Your task to perform on an android device: see sites visited before in the chrome app Image 0: 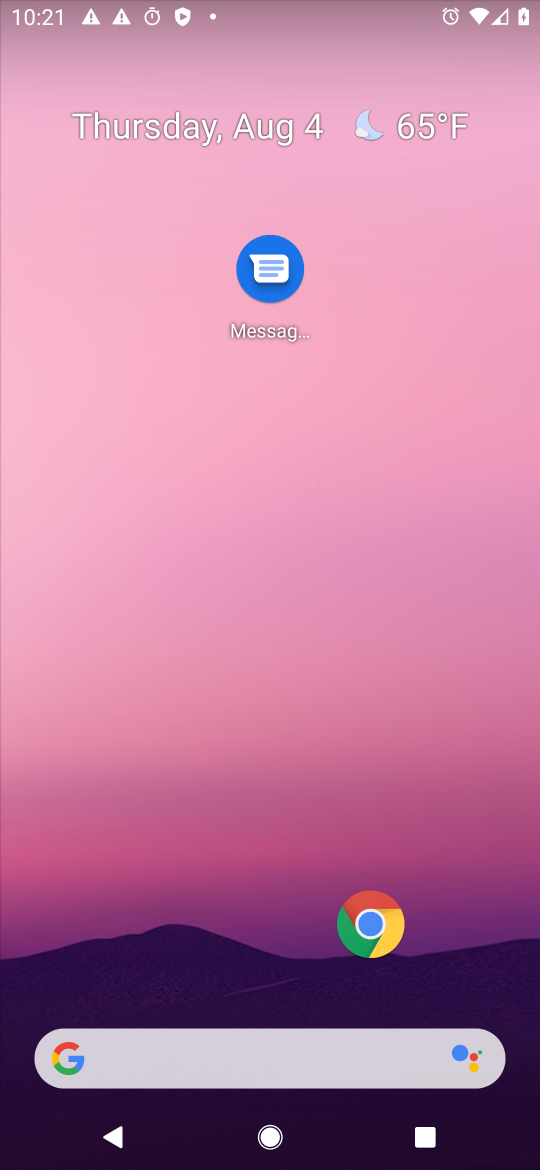
Step 0: drag from (267, 586) to (315, 139)
Your task to perform on an android device: see sites visited before in the chrome app Image 1: 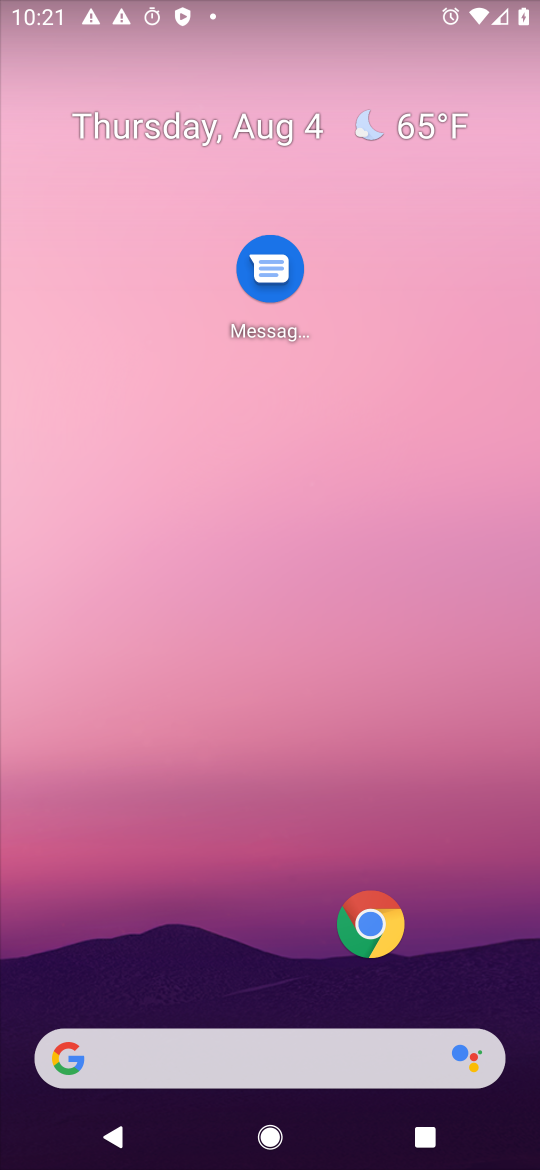
Step 1: drag from (264, 915) to (229, 223)
Your task to perform on an android device: see sites visited before in the chrome app Image 2: 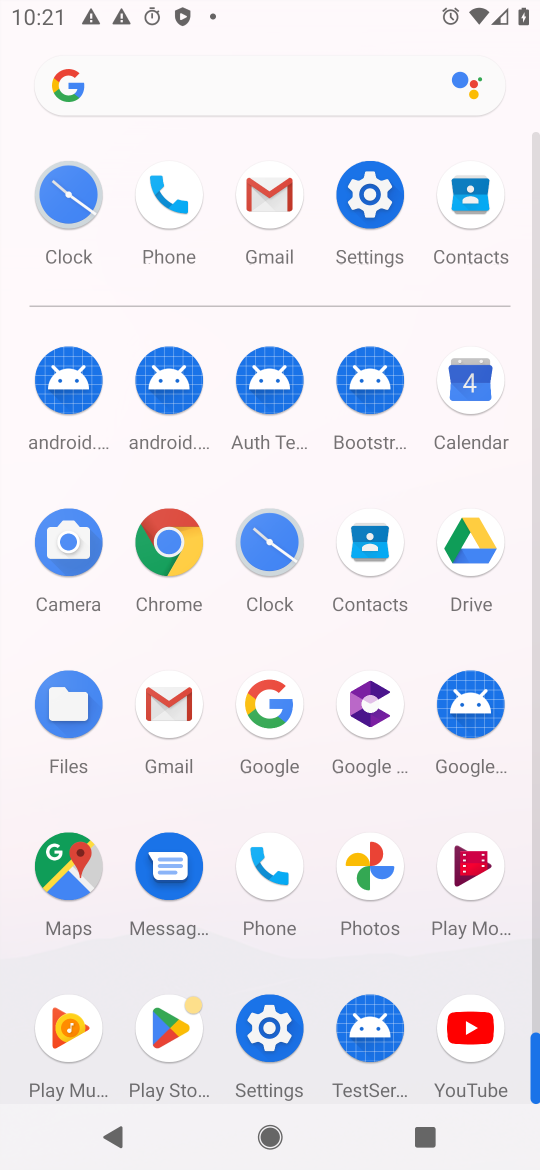
Step 2: click (158, 555)
Your task to perform on an android device: see sites visited before in the chrome app Image 3: 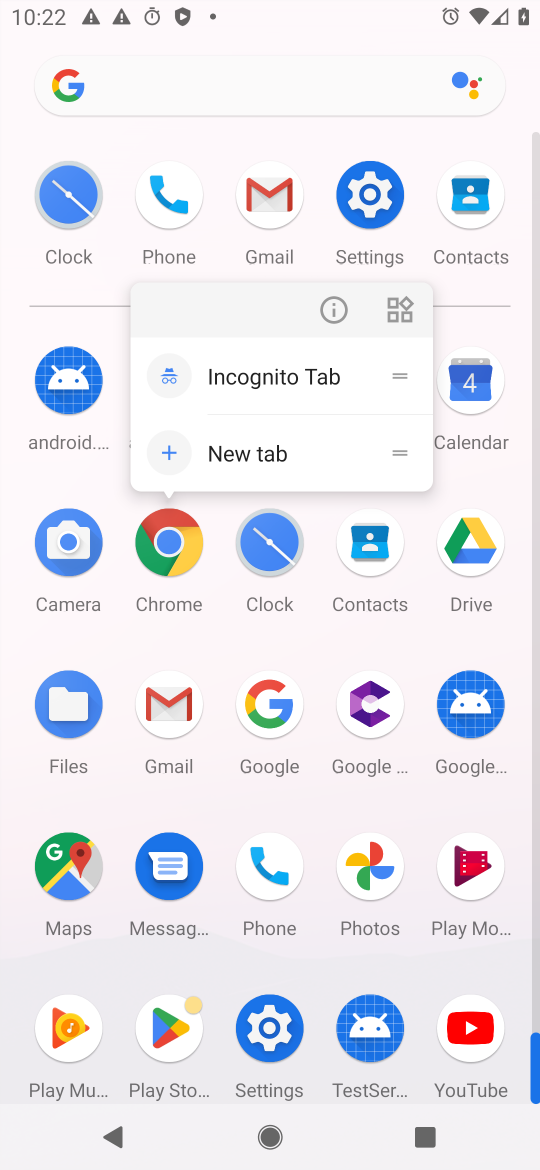
Step 3: click (317, 314)
Your task to perform on an android device: see sites visited before in the chrome app Image 4: 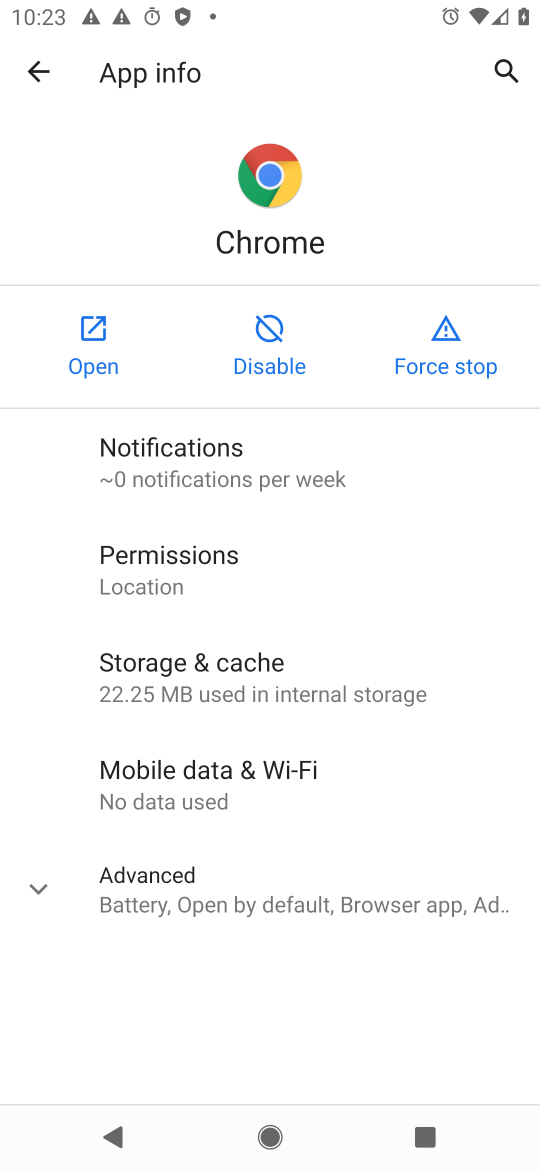
Step 4: click (90, 333)
Your task to perform on an android device: see sites visited before in the chrome app Image 5: 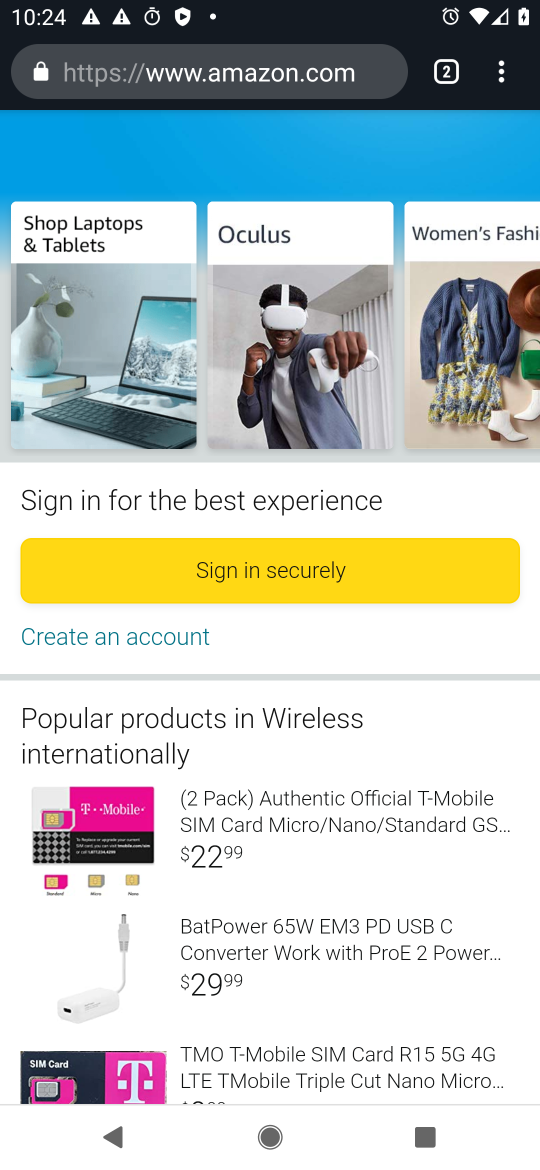
Step 5: drag from (223, 900) to (304, 376)
Your task to perform on an android device: see sites visited before in the chrome app Image 6: 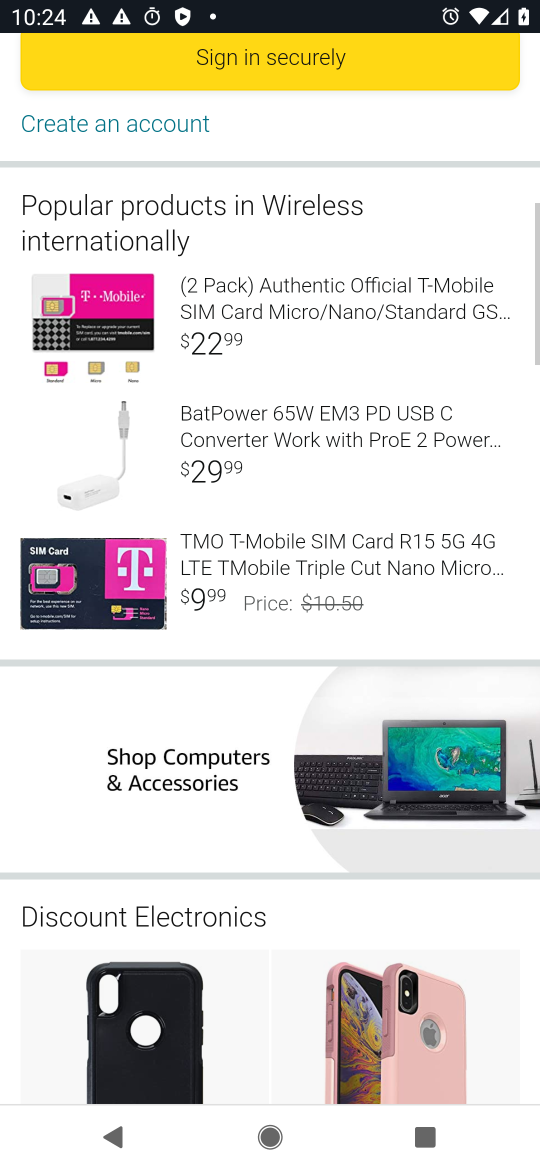
Step 6: drag from (287, 325) to (534, 52)
Your task to perform on an android device: see sites visited before in the chrome app Image 7: 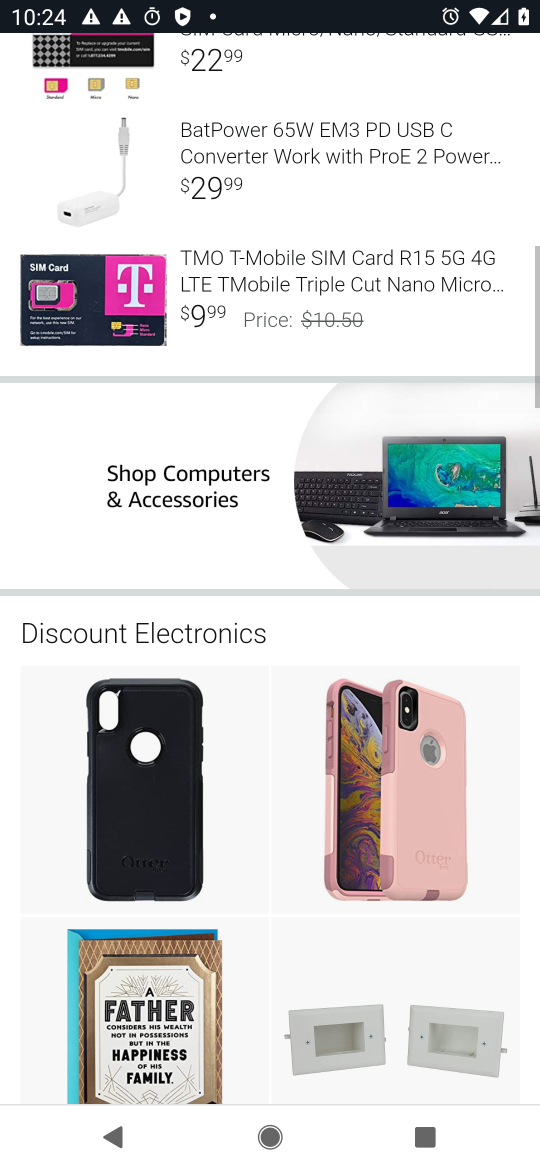
Step 7: drag from (504, 68) to (490, 225)
Your task to perform on an android device: see sites visited before in the chrome app Image 8: 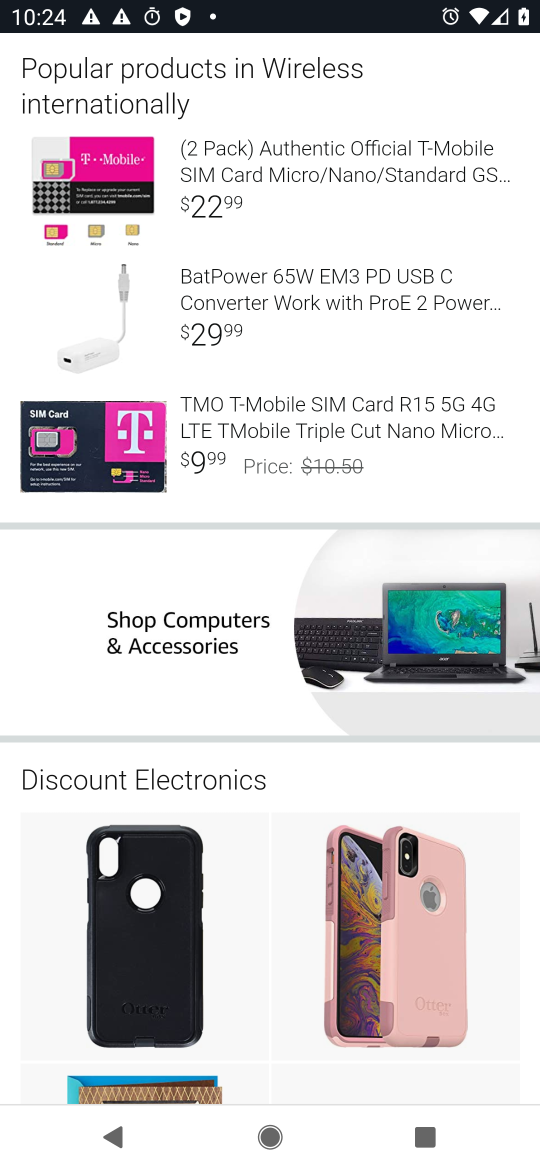
Step 8: drag from (497, 66) to (493, 283)
Your task to perform on an android device: see sites visited before in the chrome app Image 9: 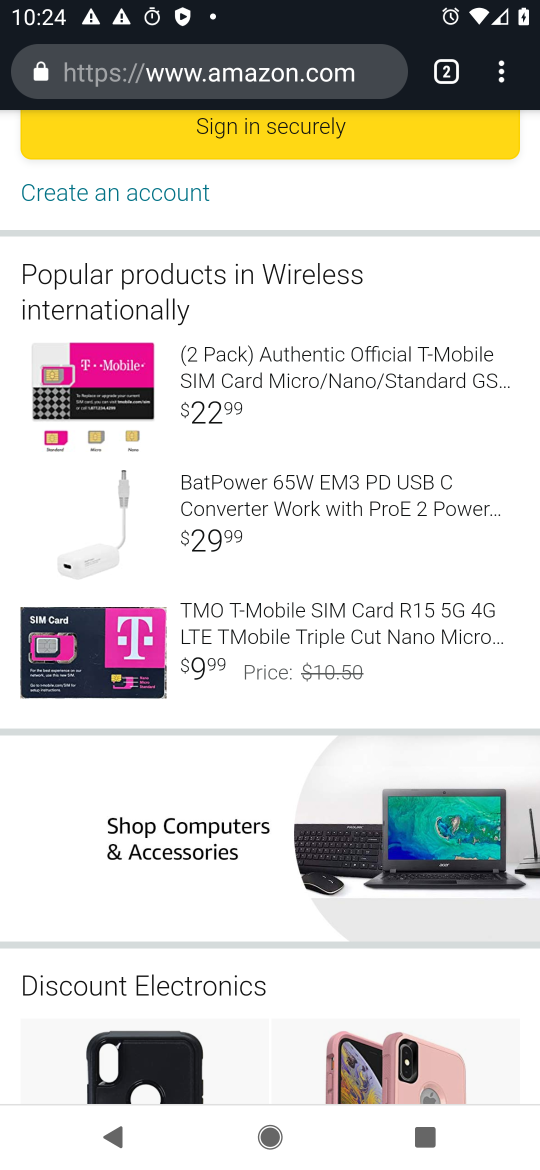
Step 9: drag from (496, 65) to (258, 405)
Your task to perform on an android device: see sites visited before in the chrome app Image 10: 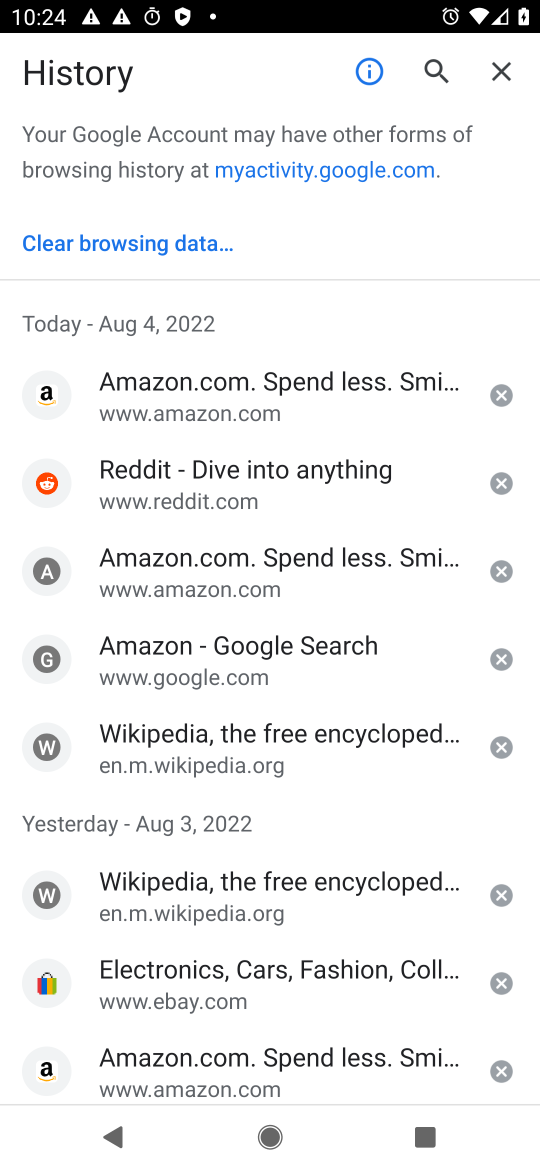
Step 10: drag from (245, 841) to (396, 231)
Your task to perform on an android device: see sites visited before in the chrome app Image 11: 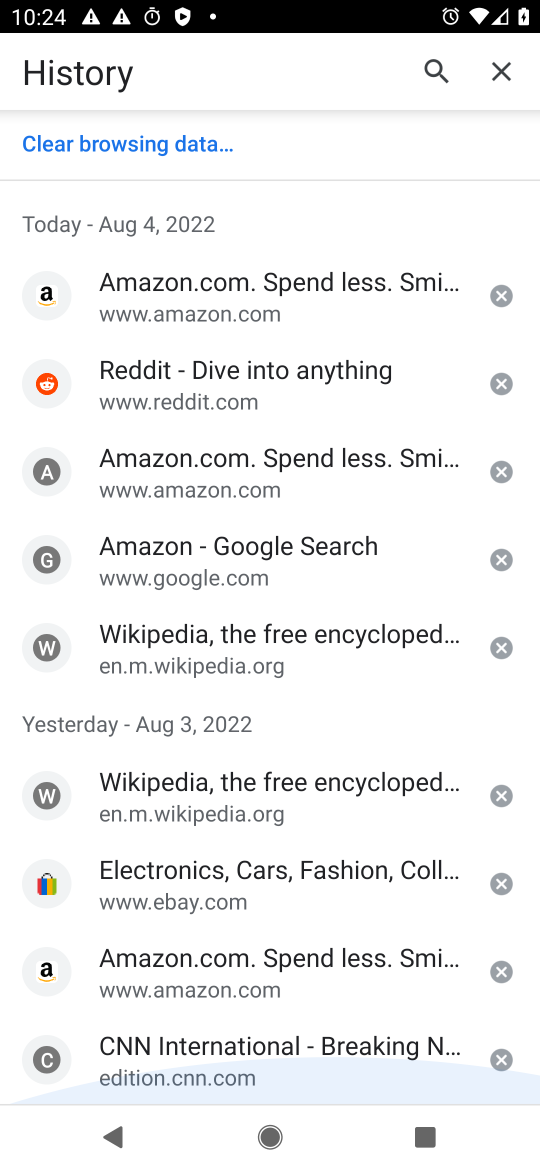
Step 11: drag from (222, 917) to (213, 980)
Your task to perform on an android device: see sites visited before in the chrome app Image 12: 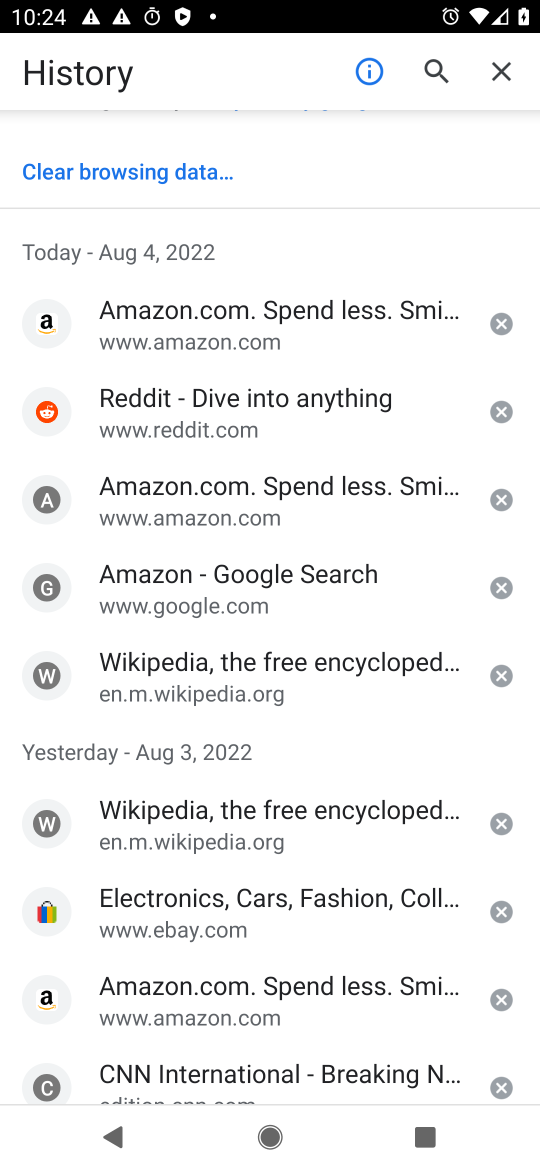
Step 12: click (246, 804)
Your task to perform on an android device: see sites visited before in the chrome app Image 13: 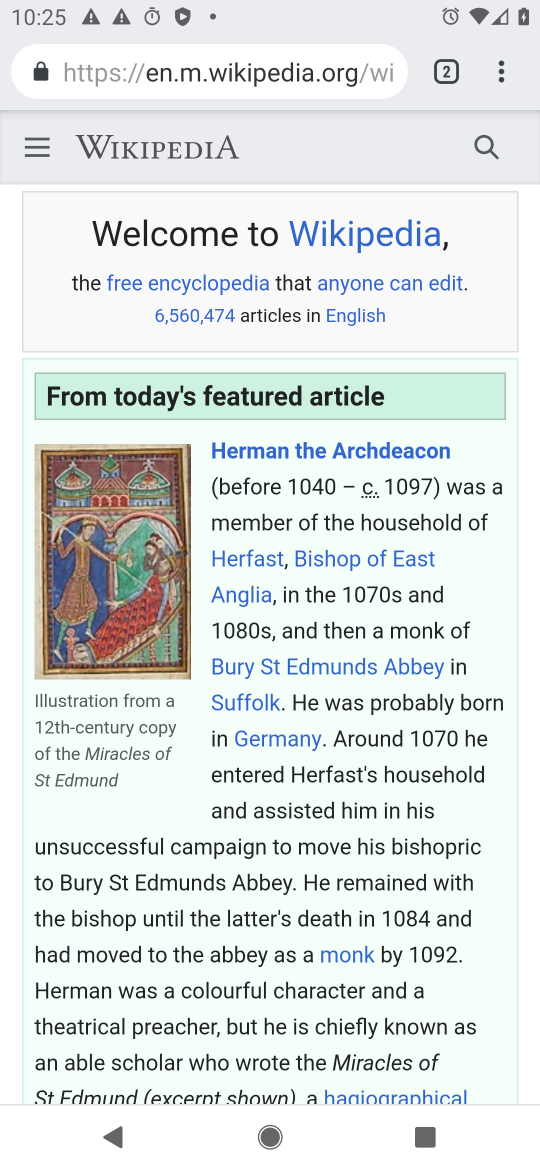
Step 13: drag from (189, 864) to (269, 632)
Your task to perform on an android device: see sites visited before in the chrome app Image 14: 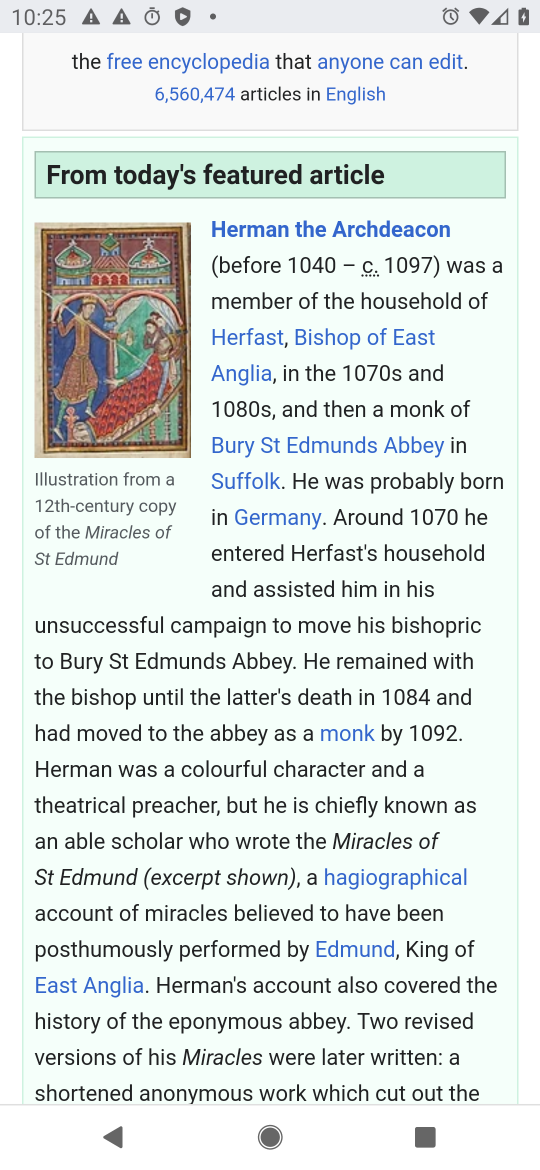
Step 14: drag from (171, 473) to (361, 1160)
Your task to perform on an android device: see sites visited before in the chrome app Image 15: 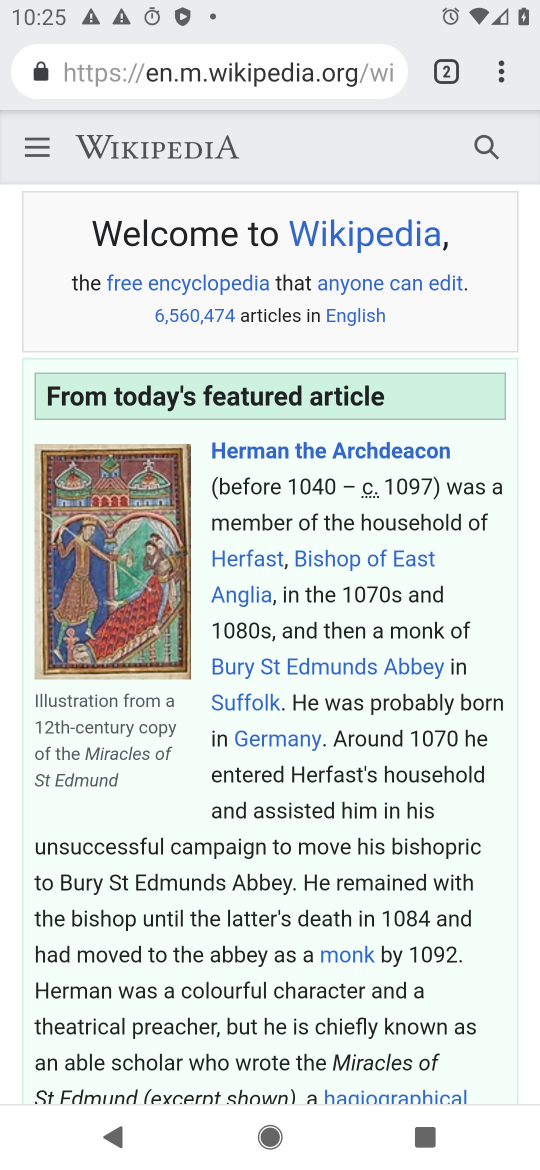
Step 15: drag from (361, 316) to (441, 909)
Your task to perform on an android device: see sites visited before in the chrome app Image 16: 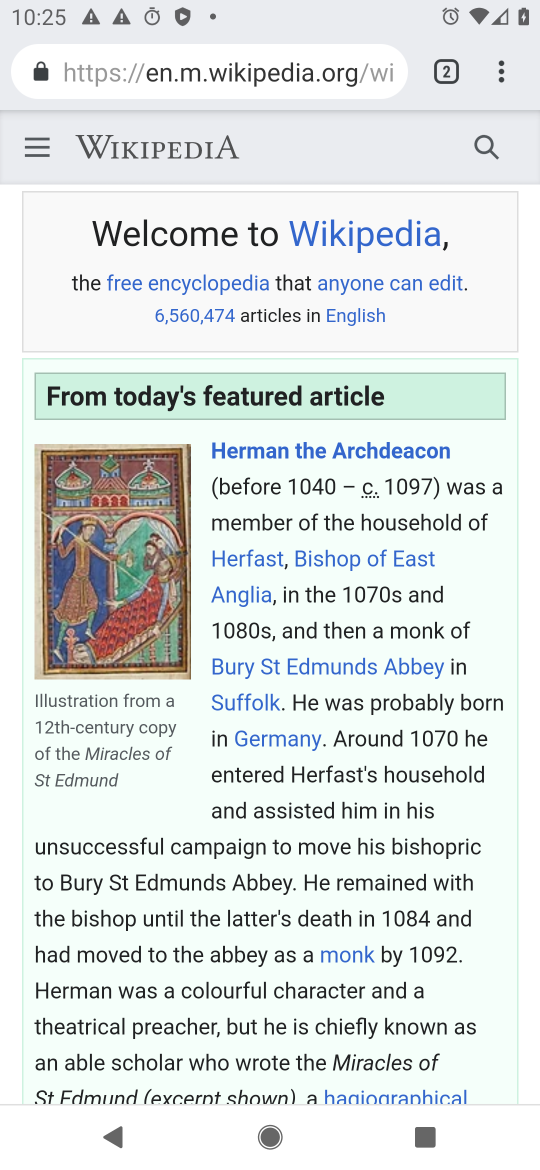
Step 16: drag from (473, 170) to (303, 715)
Your task to perform on an android device: see sites visited before in the chrome app Image 17: 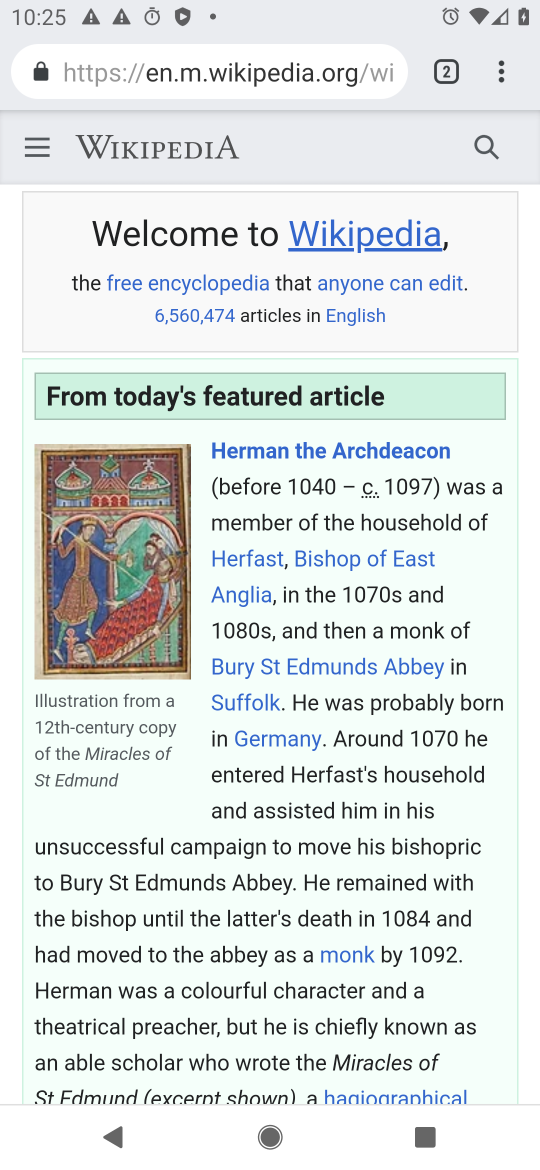
Step 17: click (502, 61)
Your task to perform on an android device: see sites visited before in the chrome app Image 18: 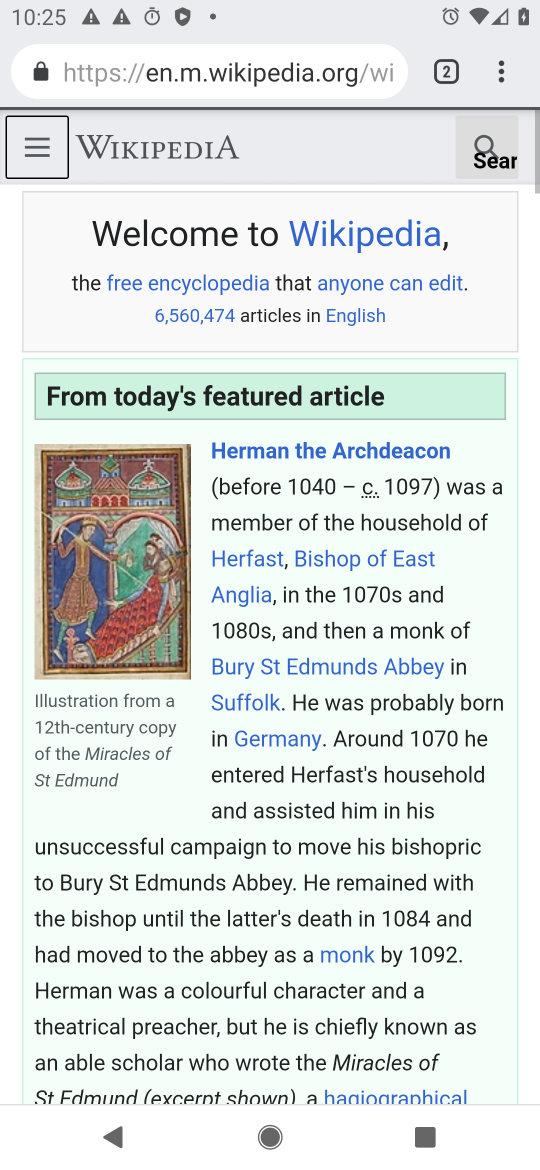
Step 18: click (485, 51)
Your task to perform on an android device: see sites visited before in the chrome app Image 19: 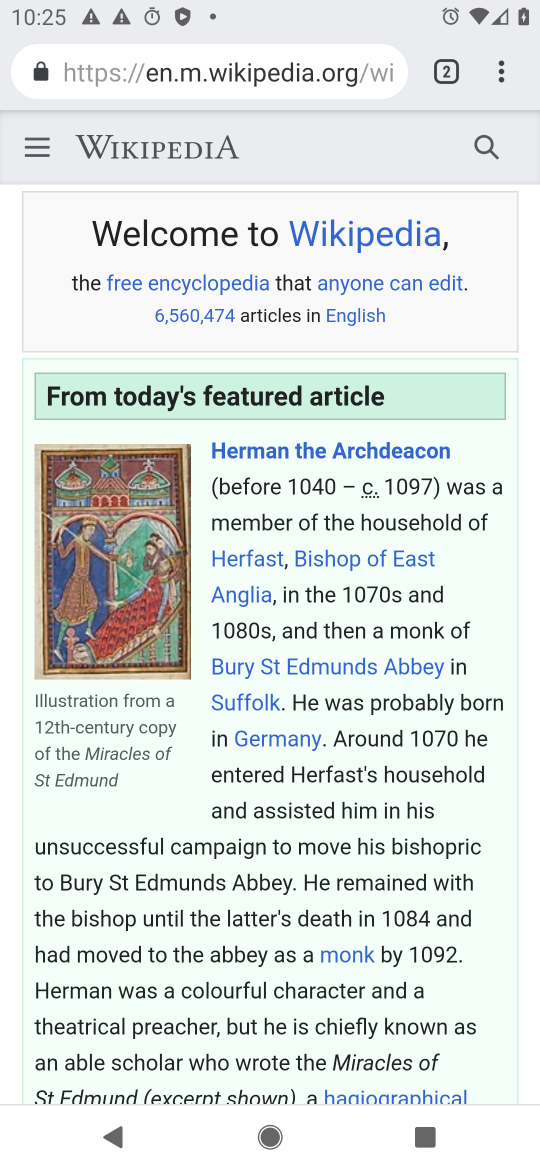
Step 19: click (505, 67)
Your task to perform on an android device: see sites visited before in the chrome app Image 20: 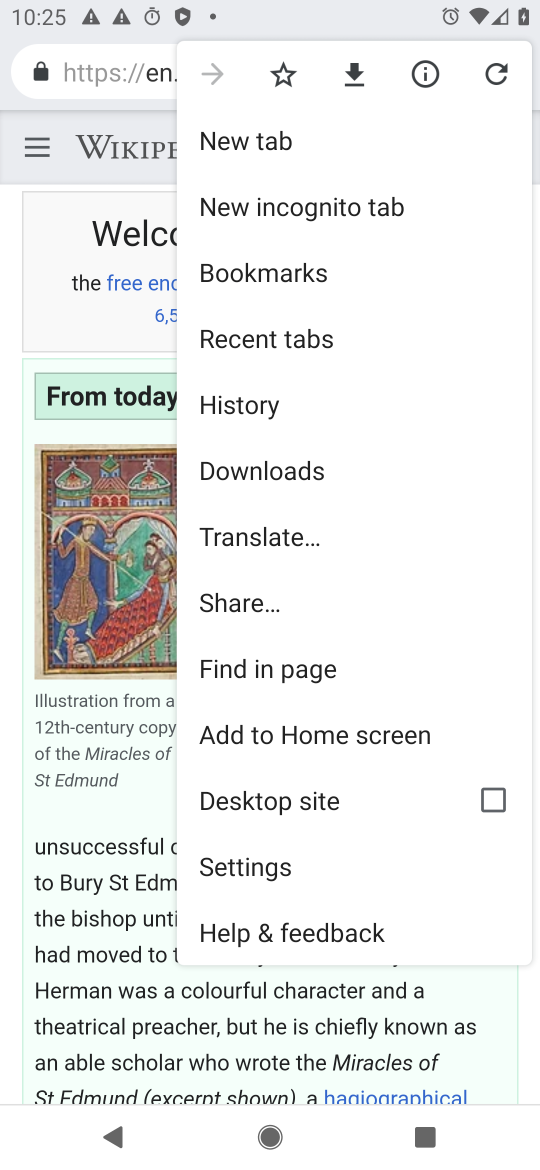
Step 20: click (309, 385)
Your task to perform on an android device: see sites visited before in the chrome app Image 21: 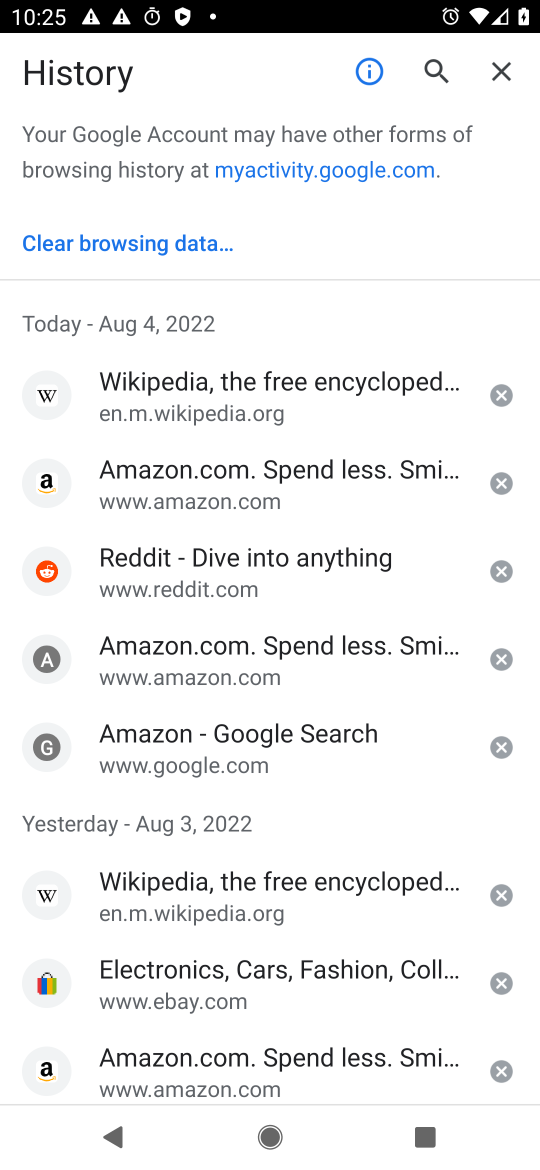
Step 21: drag from (225, 866) to (227, 462)
Your task to perform on an android device: see sites visited before in the chrome app Image 22: 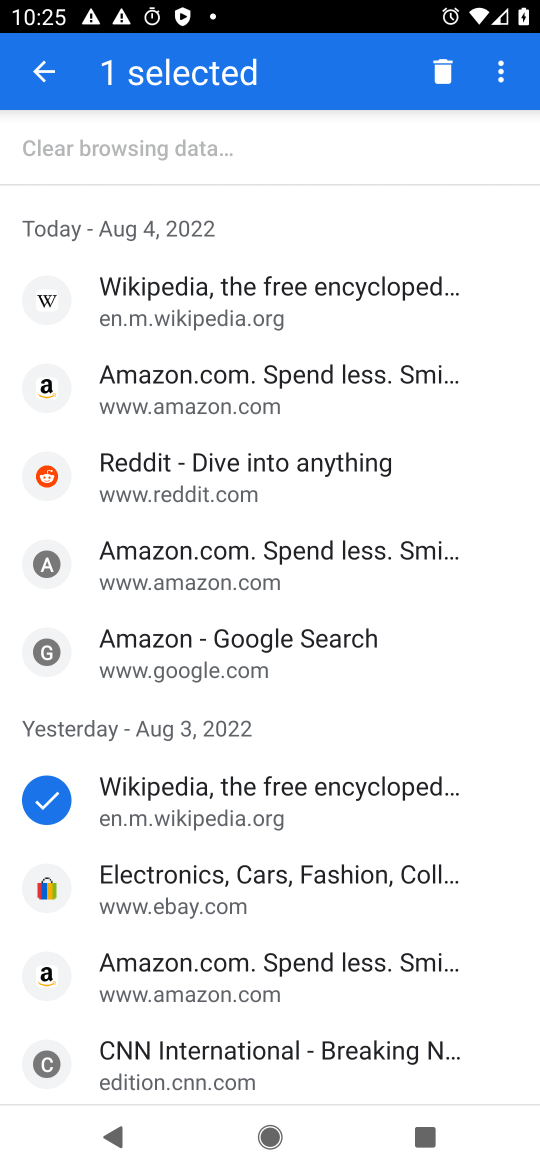
Step 22: drag from (243, 758) to (246, 552)
Your task to perform on an android device: see sites visited before in the chrome app Image 23: 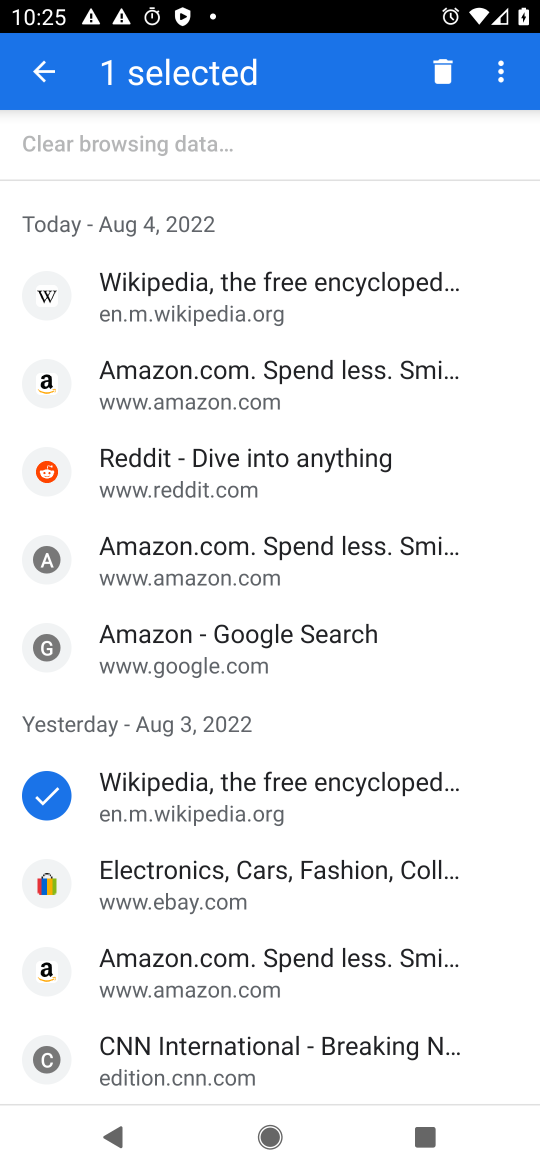
Step 23: click (38, 80)
Your task to perform on an android device: see sites visited before in the chrome app Image 24: 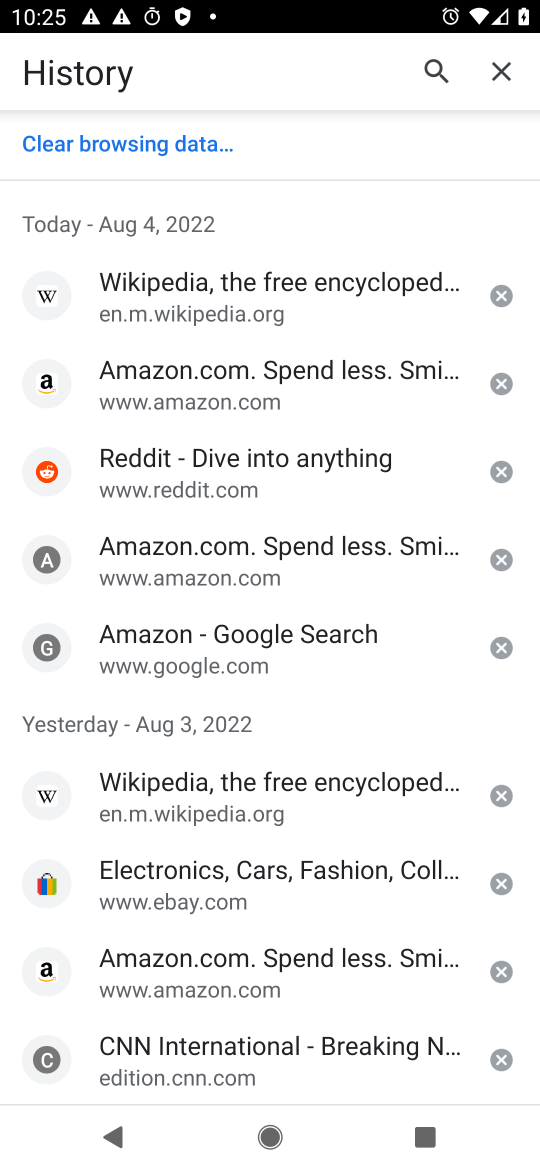
Step 24: drag from (270, 790) to (273, 376)
Your task to perform on an android device: see sites visited before in the chrome app Image 25: 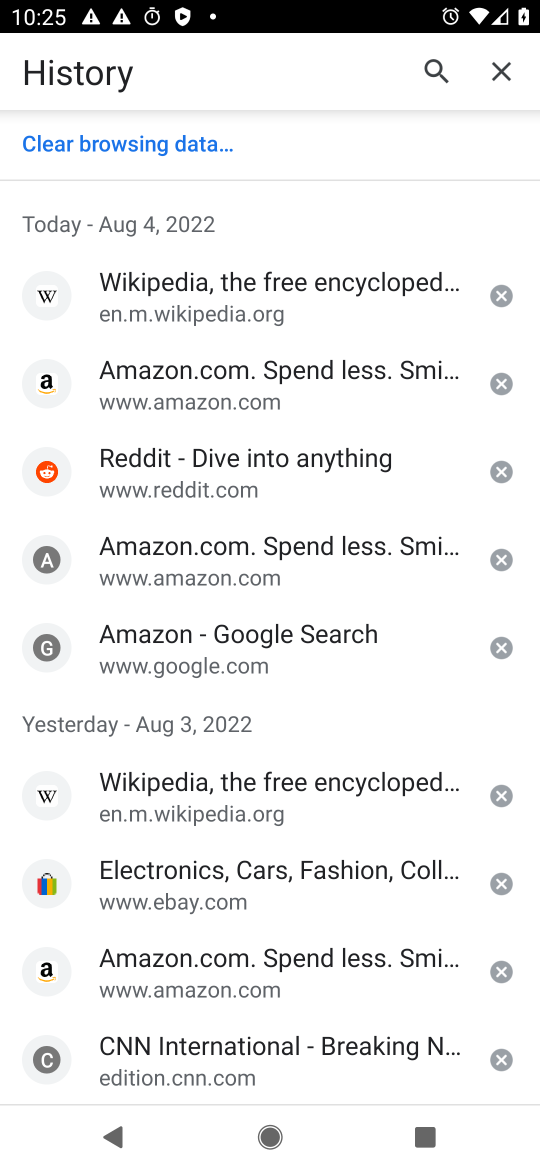
Step 25: drag from (275, 411) to (225, 772)
Your task to perform on an android device: see sites visited before in the chrome app Image 26: 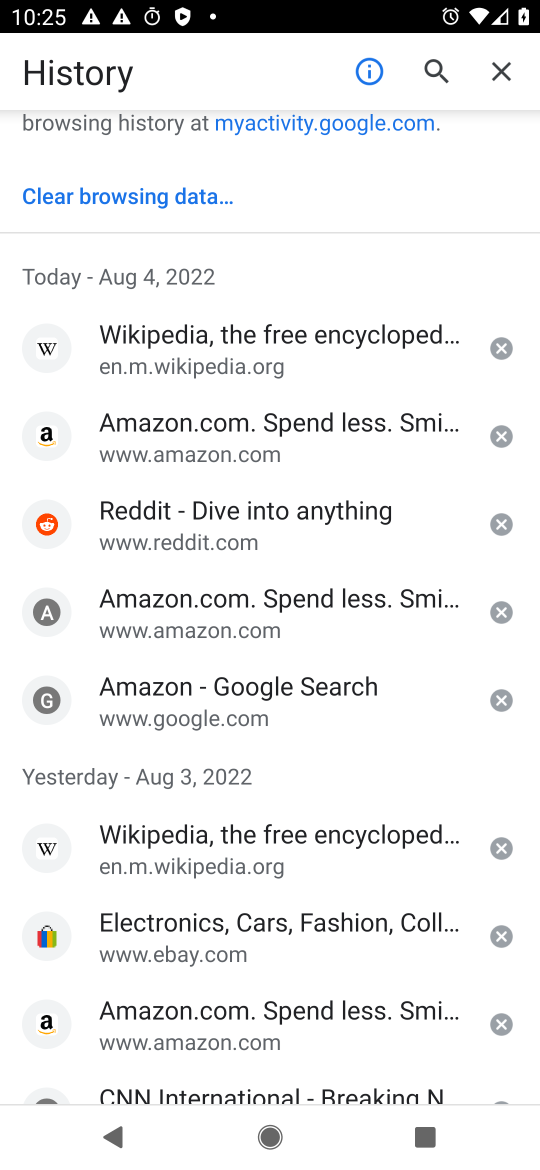
Step 26: drag from (233, 407) to (271, 968)
Your task to perform on an android device: see sites visited before in the chrome app Image 27: 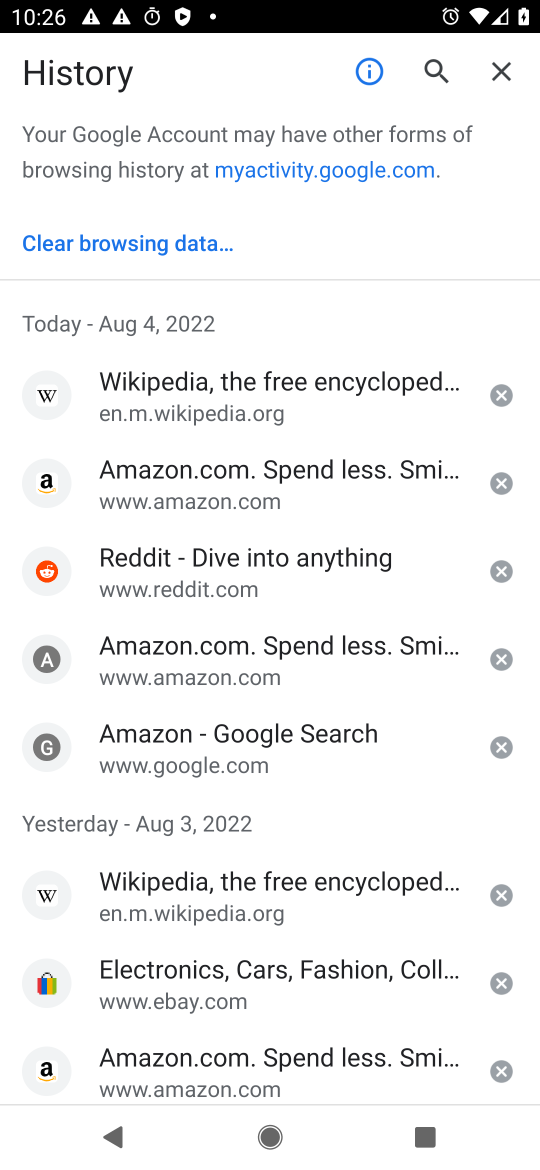
Step 27: click (214, 646)
Your task to perform on an android device: see sites visited before in the chrome app Image 28: 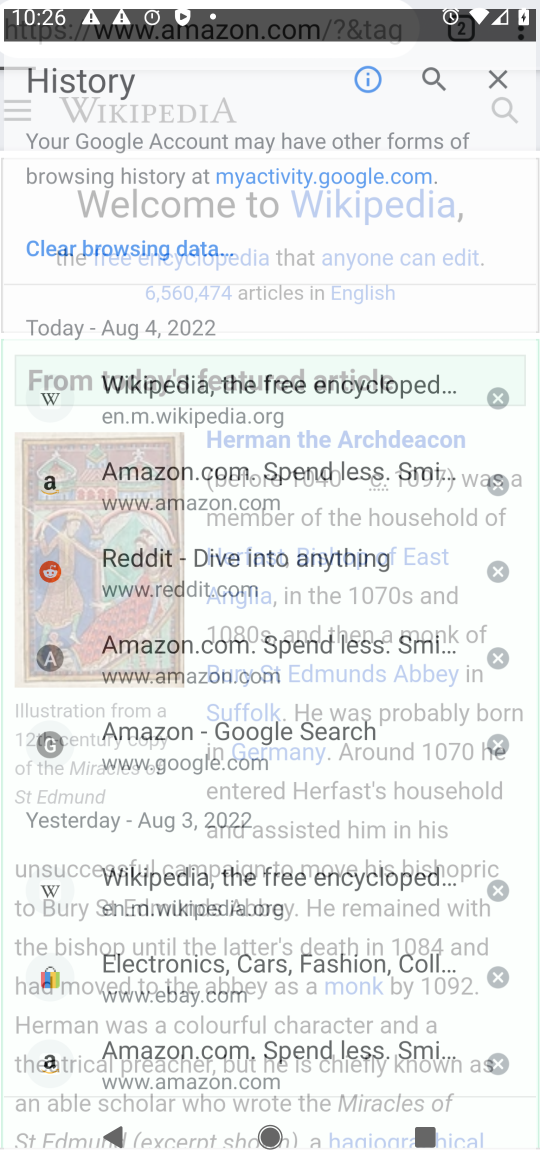
Step 28: task complete